Your task to perform on an android device: open chrome and create a bookmark for the current page Image 0: 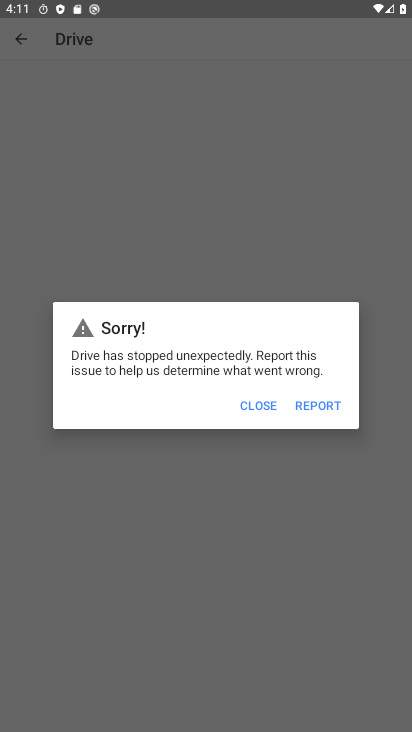
Step 0: press home button
Your task to perform on an android device: open chrome and create a bookmark for the current page Image 1: 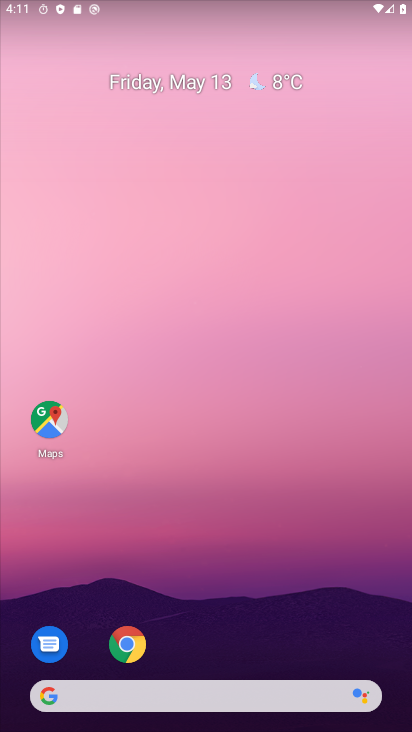
Step 1: click (121, 654)
Your task to perform on an android device: open chrome and create a bookmark for the current page Image 2: 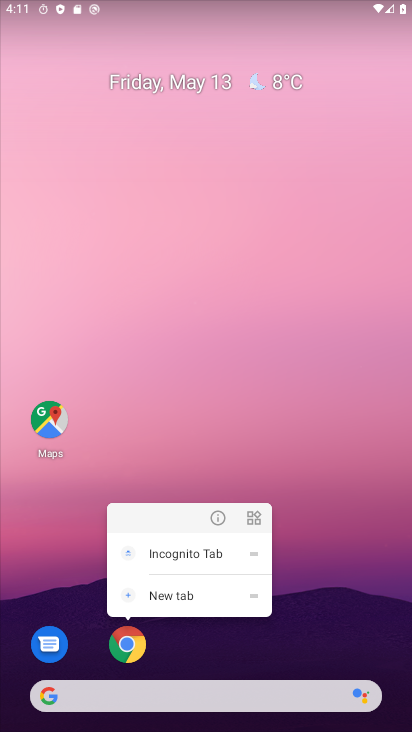
Step 2: click (145, 644)
Your task to perform on an android device: open chrome and create a bookmark for the current page Image 3: 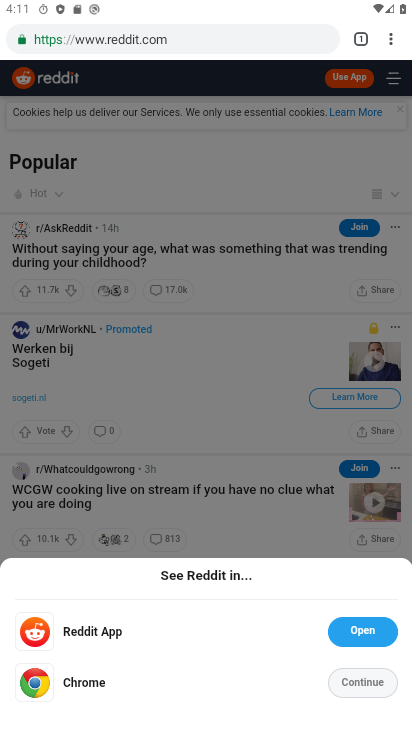
Step 3: click (407, 46)
Your task to perform on an android device: open chrome and create a bookmark for the current page Image 4: 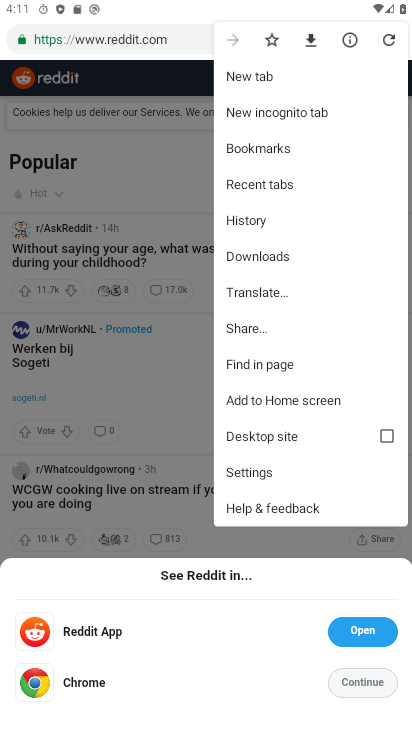
Step 4: click (273, 39)
Your task to perform on an android device: open chrome and create a bookmark for the current page Image 5: 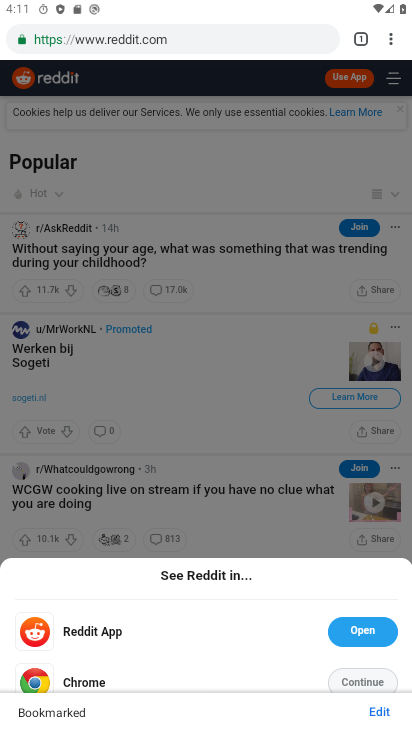
Step 5: task complete